Your task to perform on an android device: uninstall "Messenger Lite" Image 0: 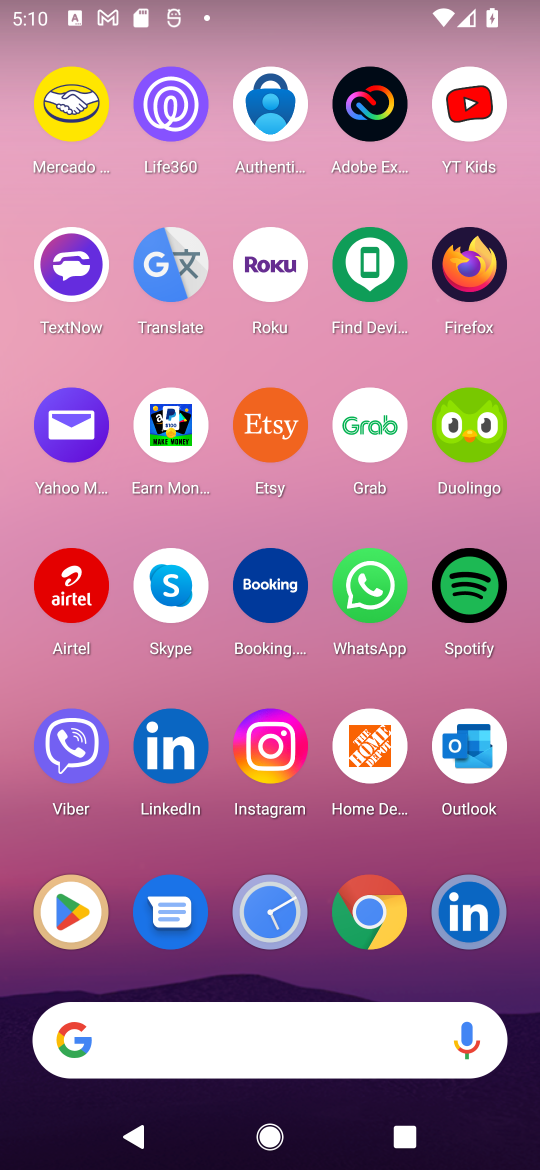
Step 0: press home button
Your task to perform on an android device: uninstall "Messenger Lite" Image 1: 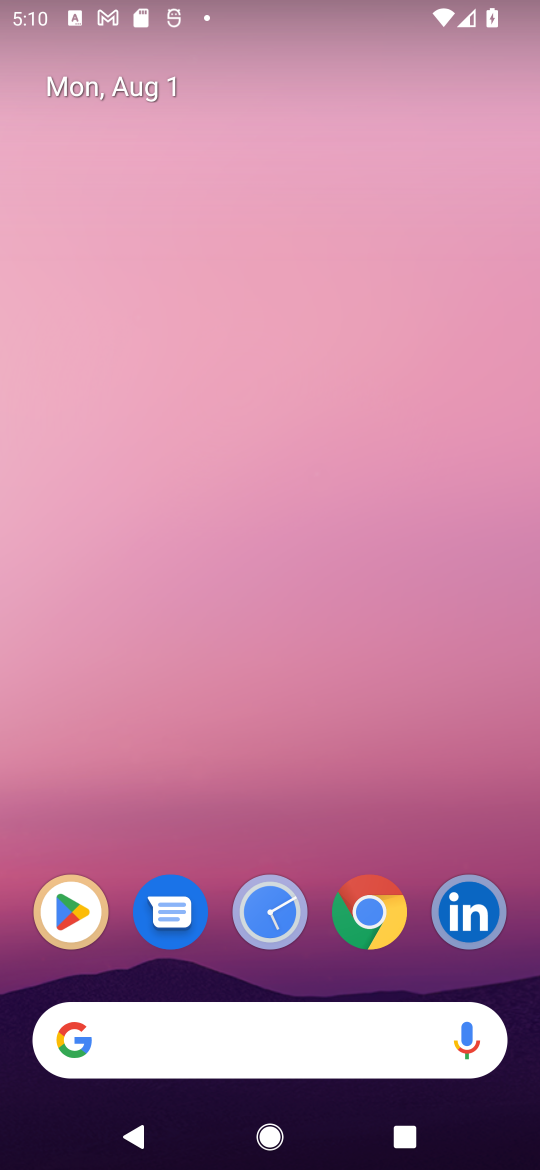
Step 1: click (87, 922)
Your task to perform on an android device: uninstall "Messenger Lite" Image 2: 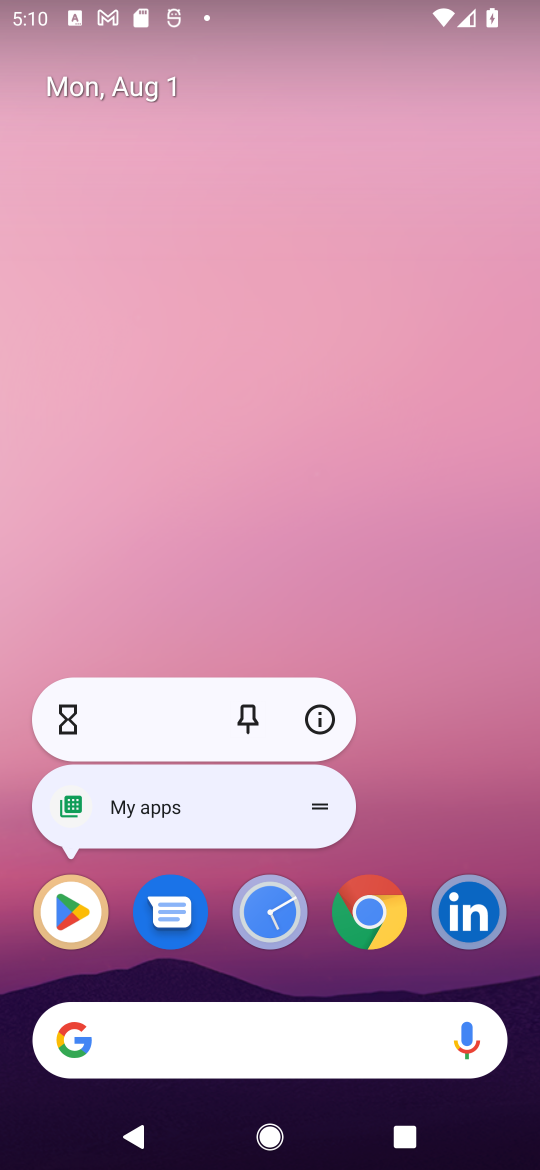
Step 2: click (60, 914)
Your task to perform on an android device: uninstall "Messenger Lite" Image 3: 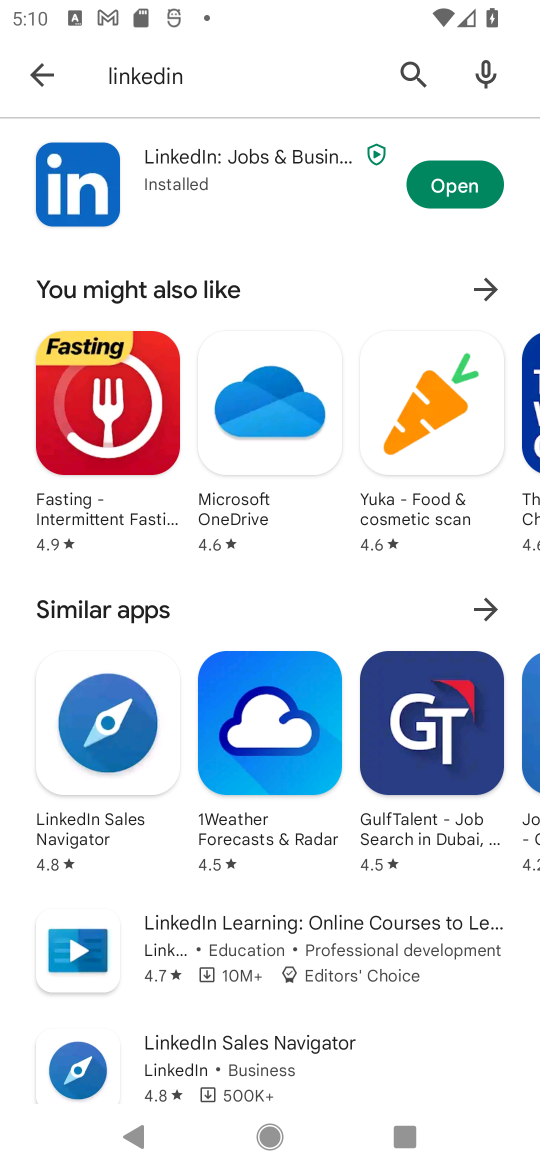
Step 3: click (420, 64)
Your task to perform on an android device: uninstall "Messenger Lite" Image 4: 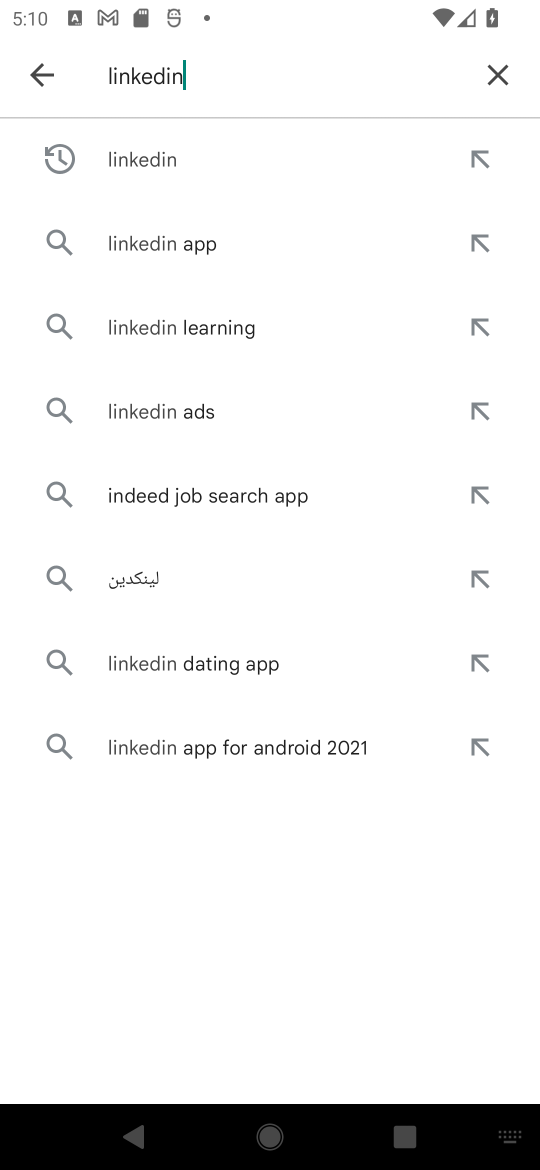
Step 4: click (511, 84)
Your task to perform on an android device: uninstall "Messenger Lite" Image 5: 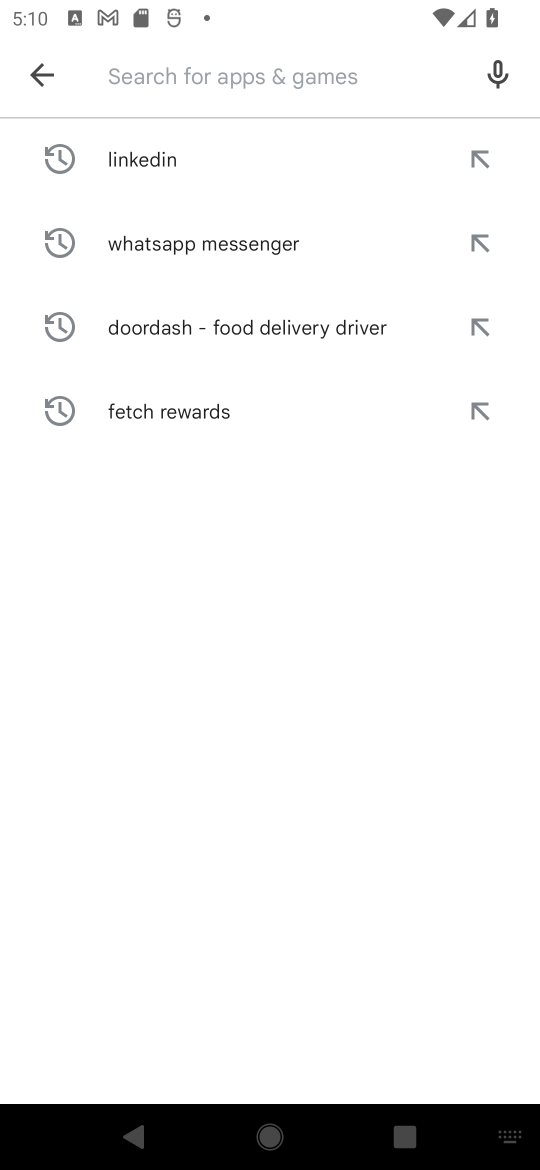
Step 5: type "Messenger Lite"
Your task to perform on an android device: uninstall "Messenger Lite" Image 6: 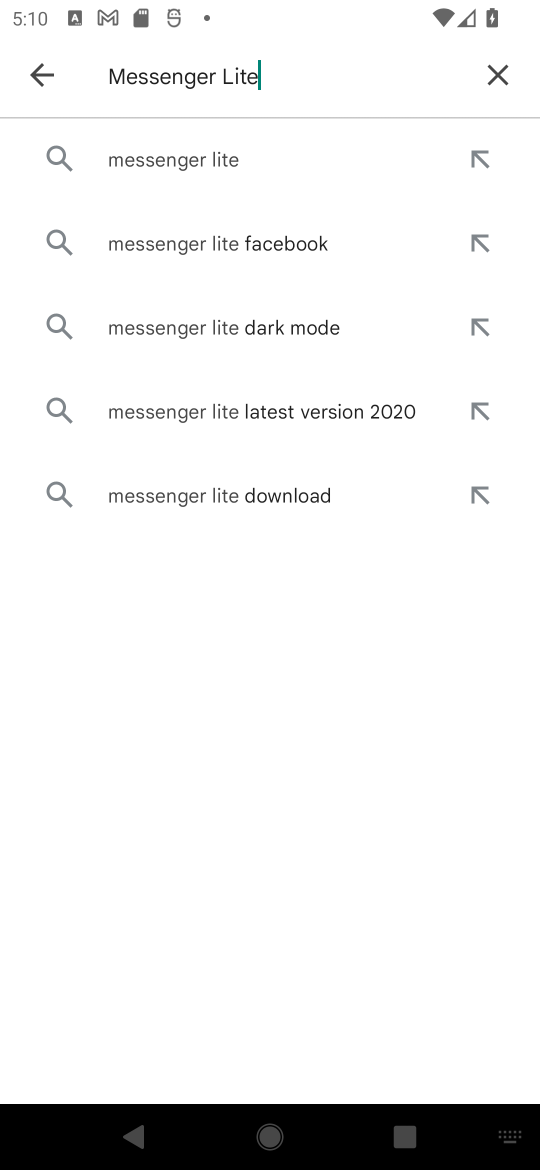
Step 6: click (179, 184)
Your task to perform on an android device: uninstall "Messenger Lite" Image 7: 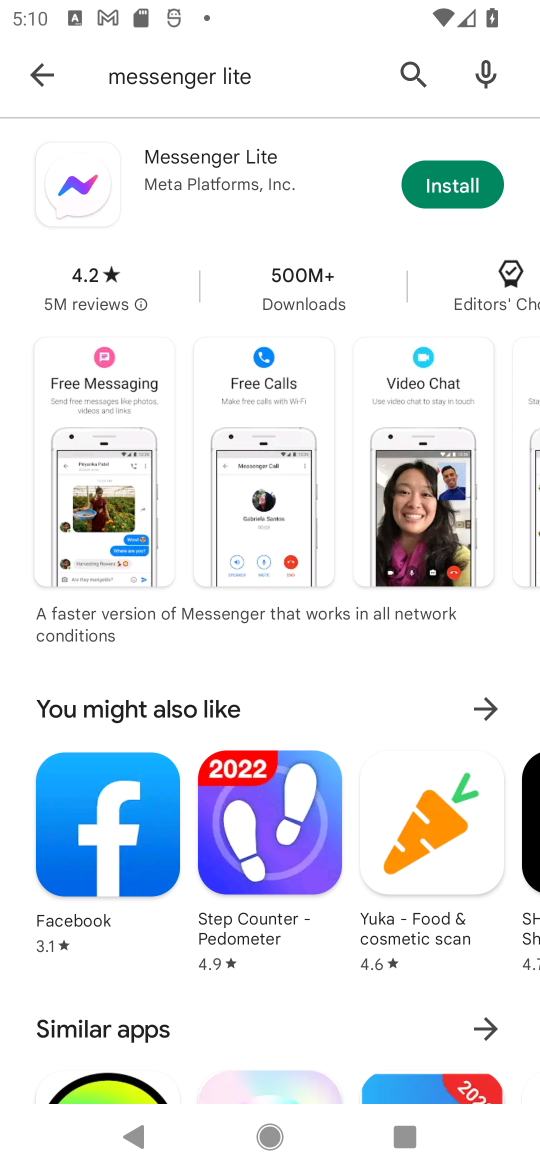
Step 7: task complete